Your task to perform on an android device: check google app version Image 0: 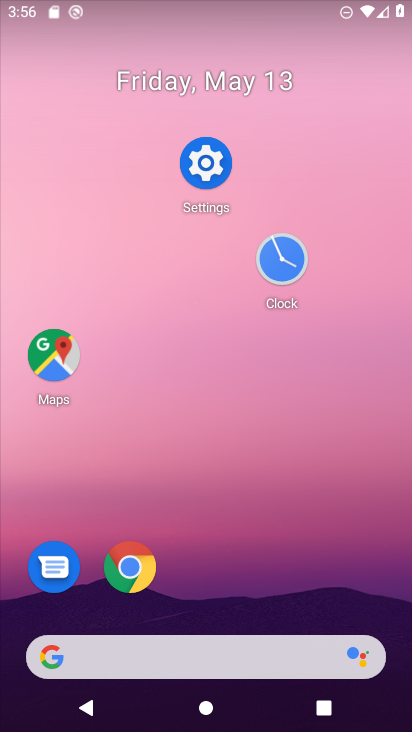
Step 0: click (124, 543)
Your task to perform on an android device: check google app version Image 1: 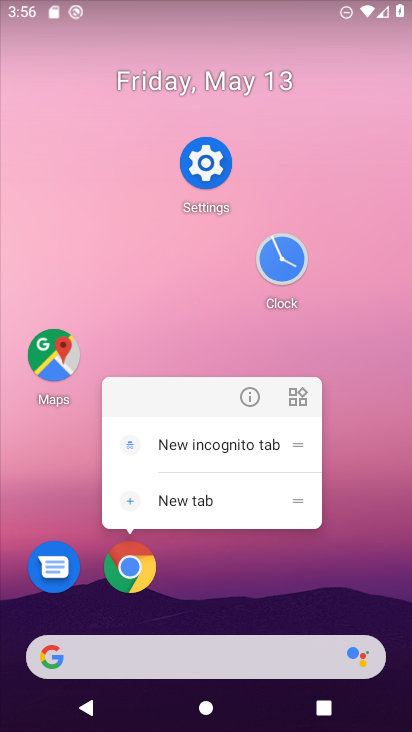
Step 1: click (246, 399)
Your task to perform on an android device: check google app version Image 2: 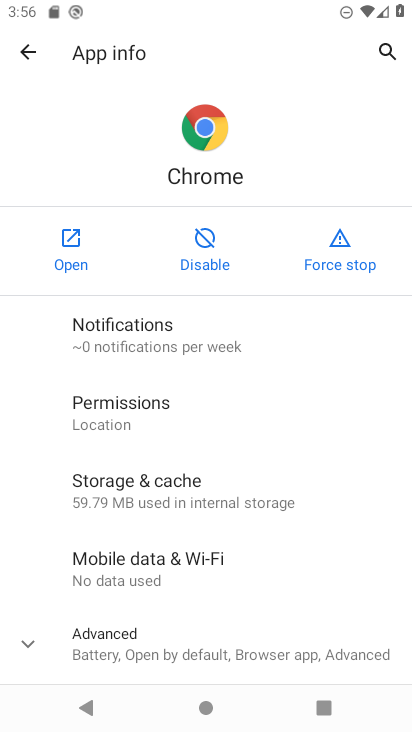
Step 2: drag from (189, 589) to (230, 355)
Your task to perform on an android device: check google app version Image 3: 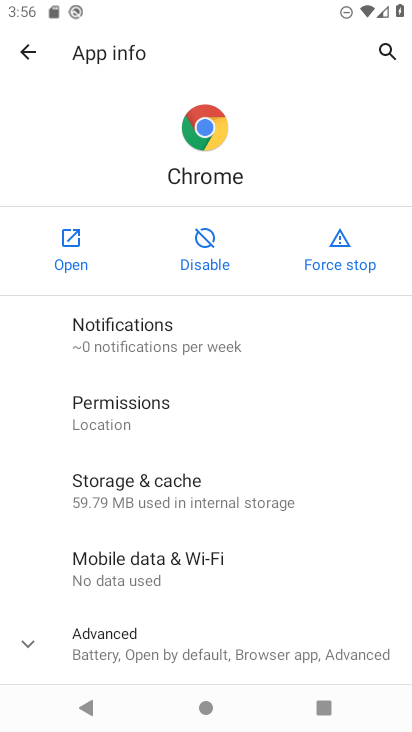
Step 3: click (157, 622)
Your task to perform on an android device: check google app version Image 4: 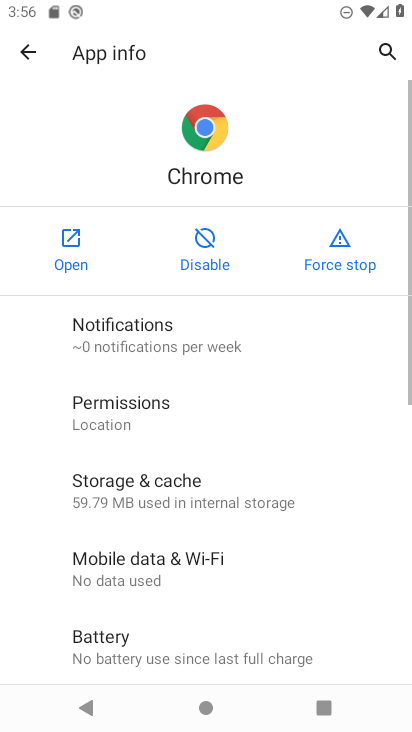
Step 4: task complete